Your task to perform on an android device: Clear the cart on ebay. Add dell alienware to the cart on ebay, then select checkout. Image 0: 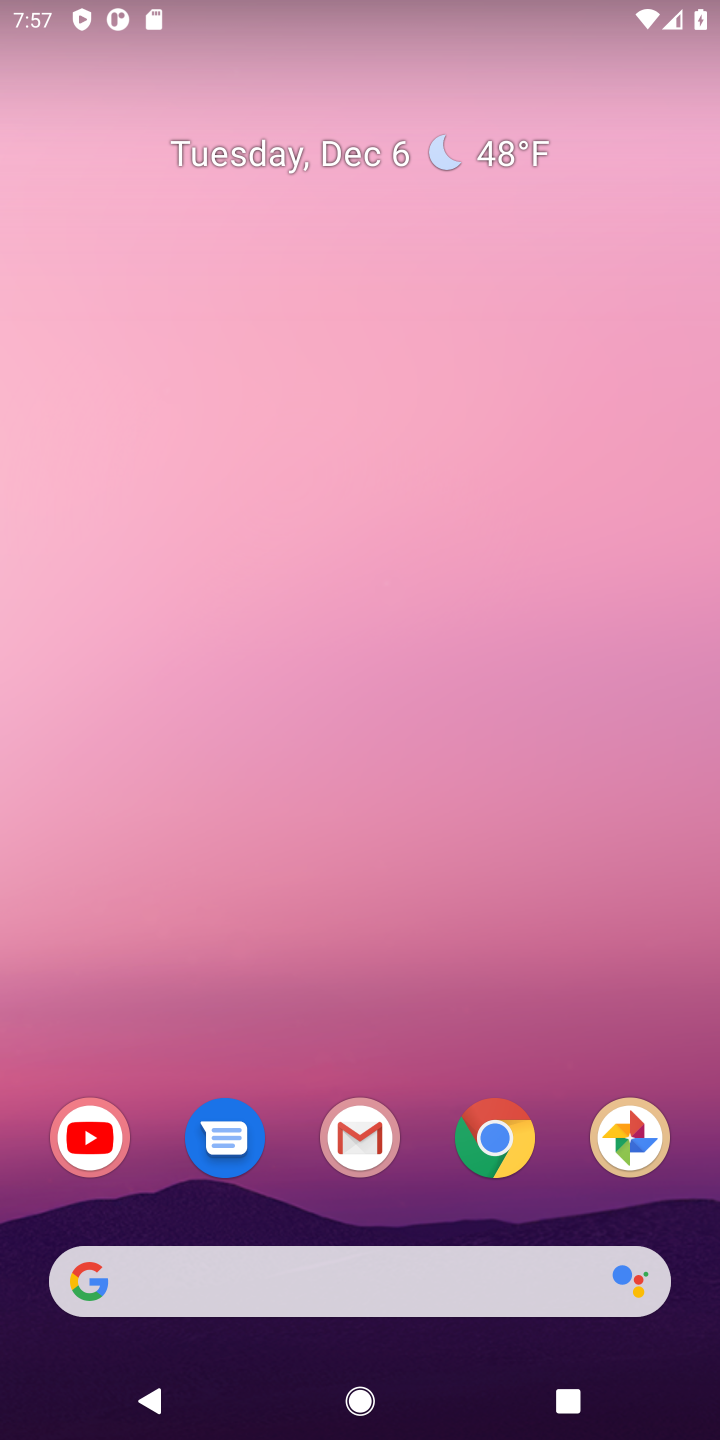
Step 0: click (498, 1140)
Your task to perform on an android device: Clear the cart on ebay. Add dell alienware to the cart on ebay, then select checkout. Image 1: 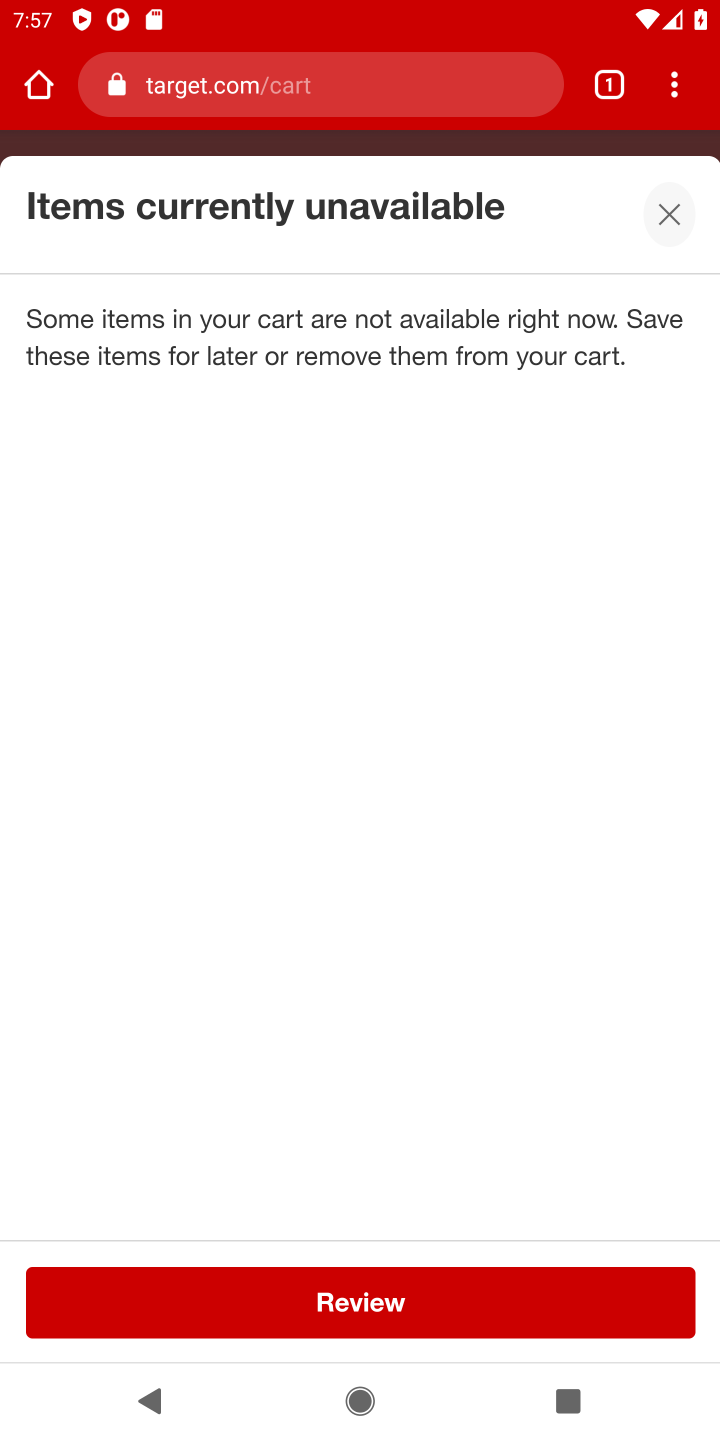
Step 1: click (331, 92)
Your task to perform on an android device: Clear the cart on ebay. Add dell alienware to the cart on ebay, then select checkout. Image 2: 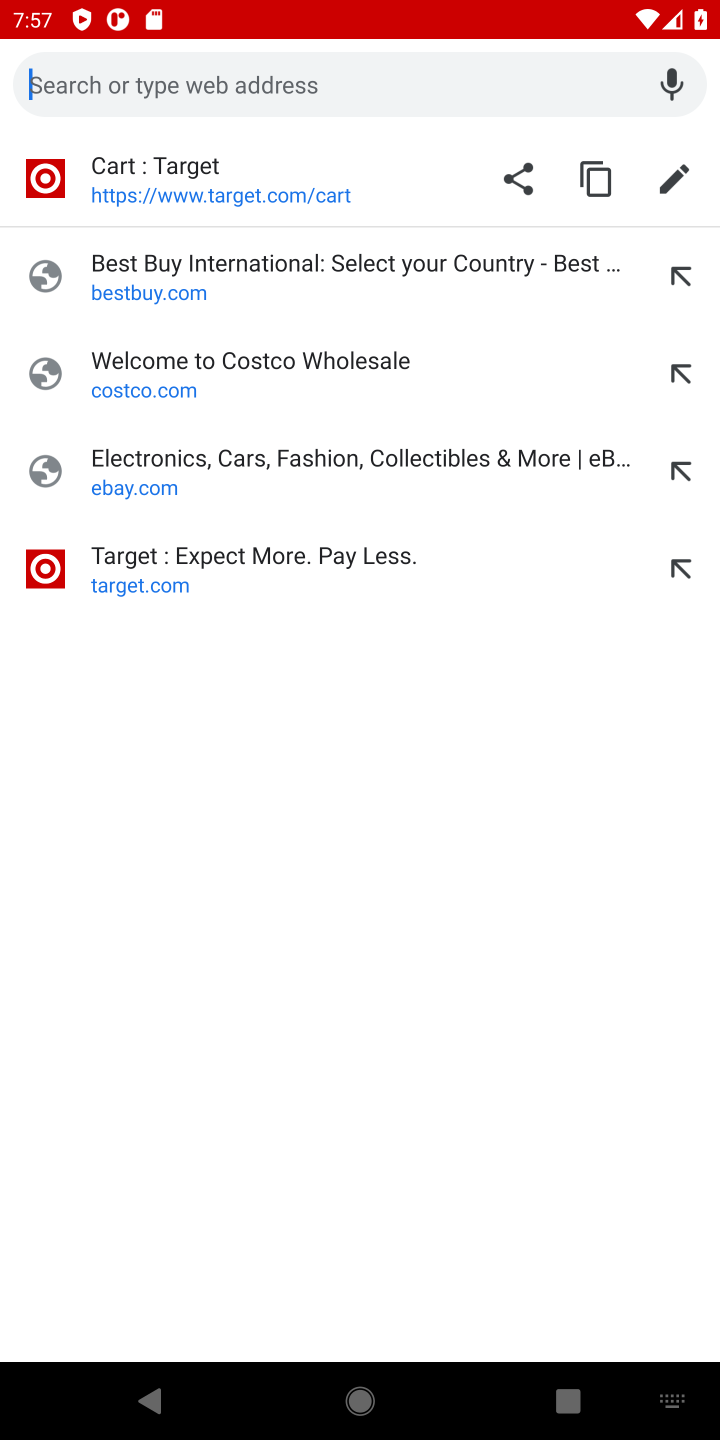
Step 2: click (111, 469)
Your task to perform on an android device: Clear the cart on ebay. Add dell alienware to the cart on ebay, then select checkout. Image 3: 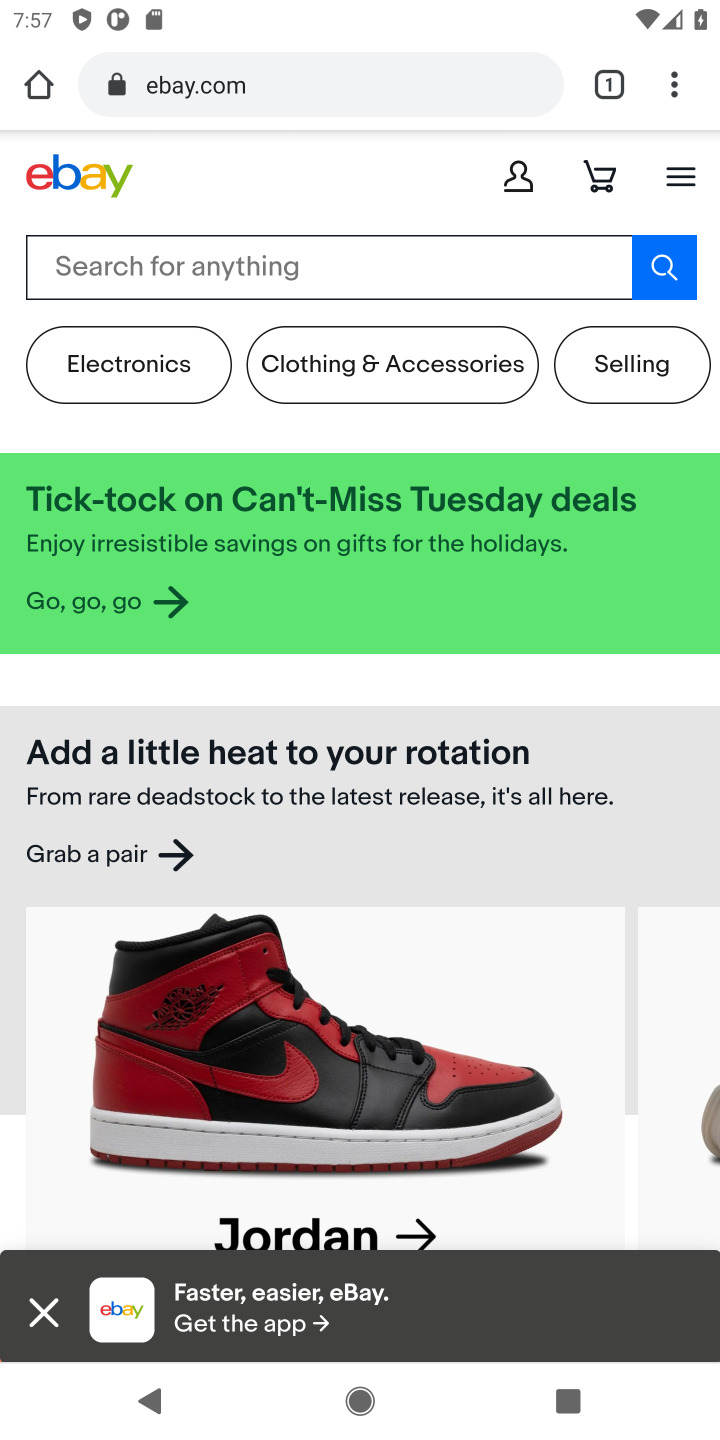
Step 3: click (604, 180)
Your task to perform on an android device: Clear the cart on ebay. Add dell alienware to the cart on ebay, then select checkout. Image 4: 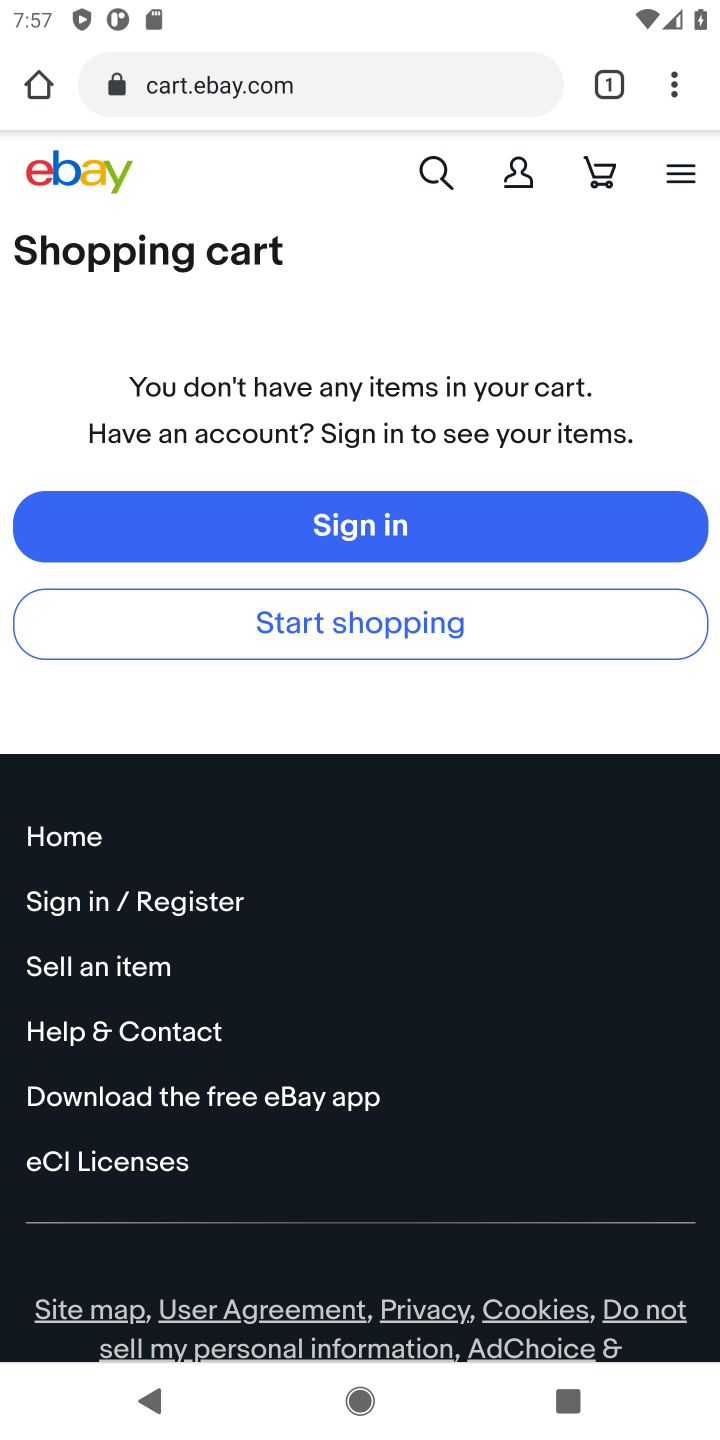
Step 4: click (430, 165)
Your task to perform on an android device: Clear the cart on ebay. Add dell alienware to the cart on ebay, then select checkout. Image 5: 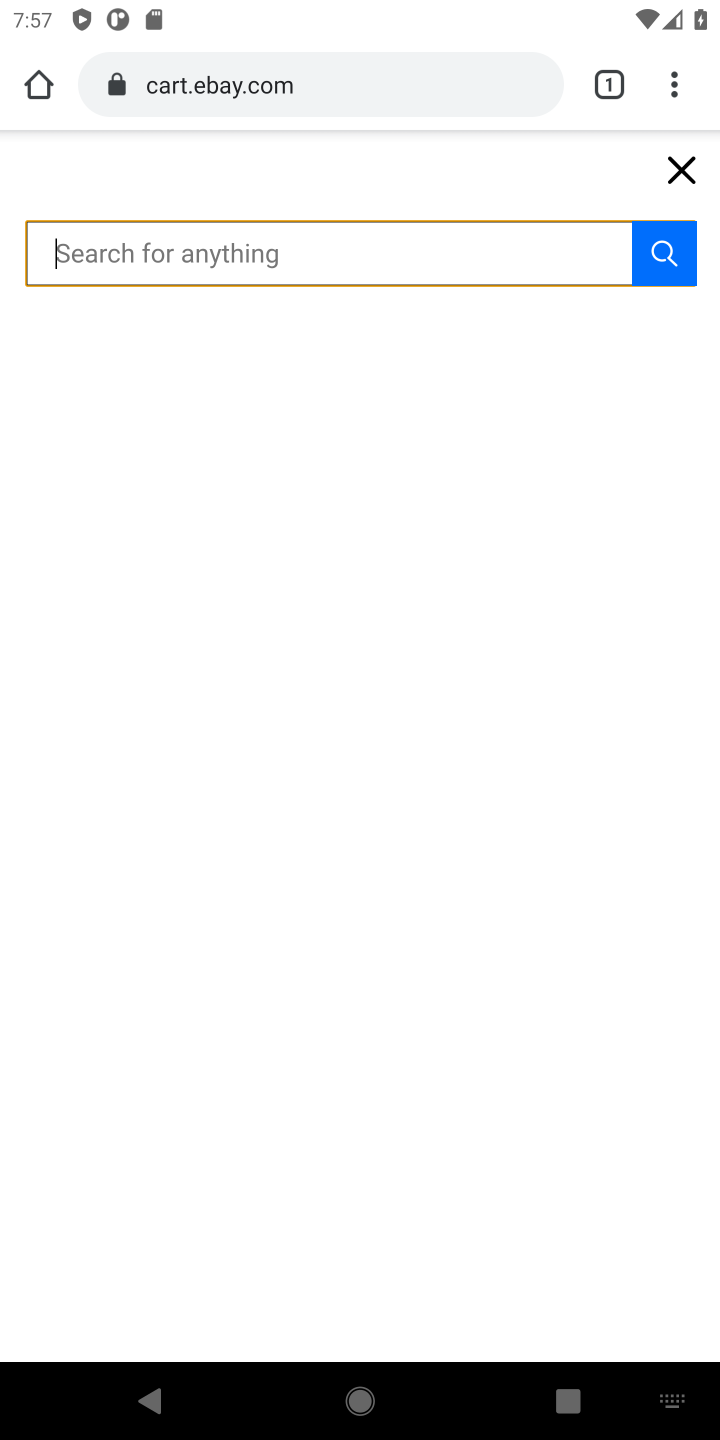
Step 5: type "dell alienware"
Your task to perform on an android device: Clear the cart on ebay. Add dell alienware to the cart on ebay, then select checkout. Image 6: 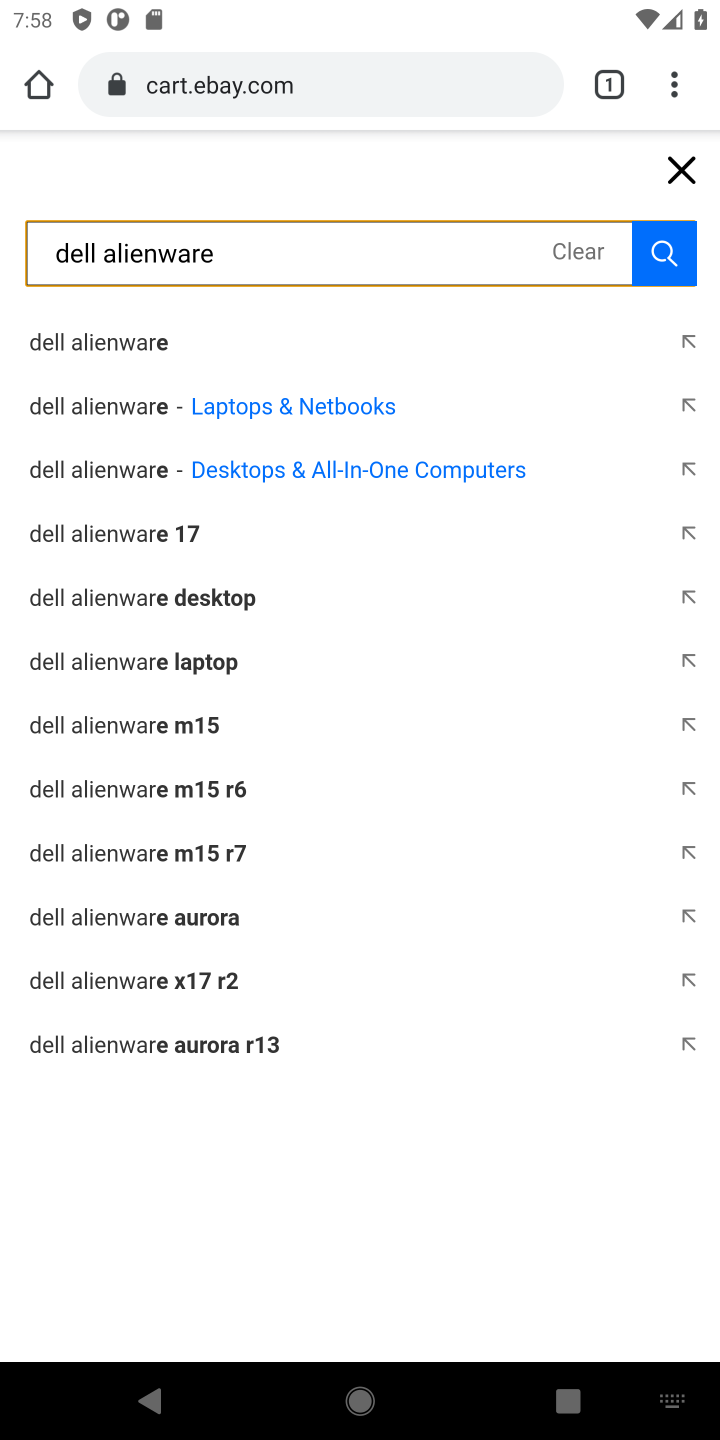
Step 6: click (98, 351)
Your task to perform on an android device: Clear the cart on ebay. Add dell alienware to the cart on ebay, then select checkout. Image 7: 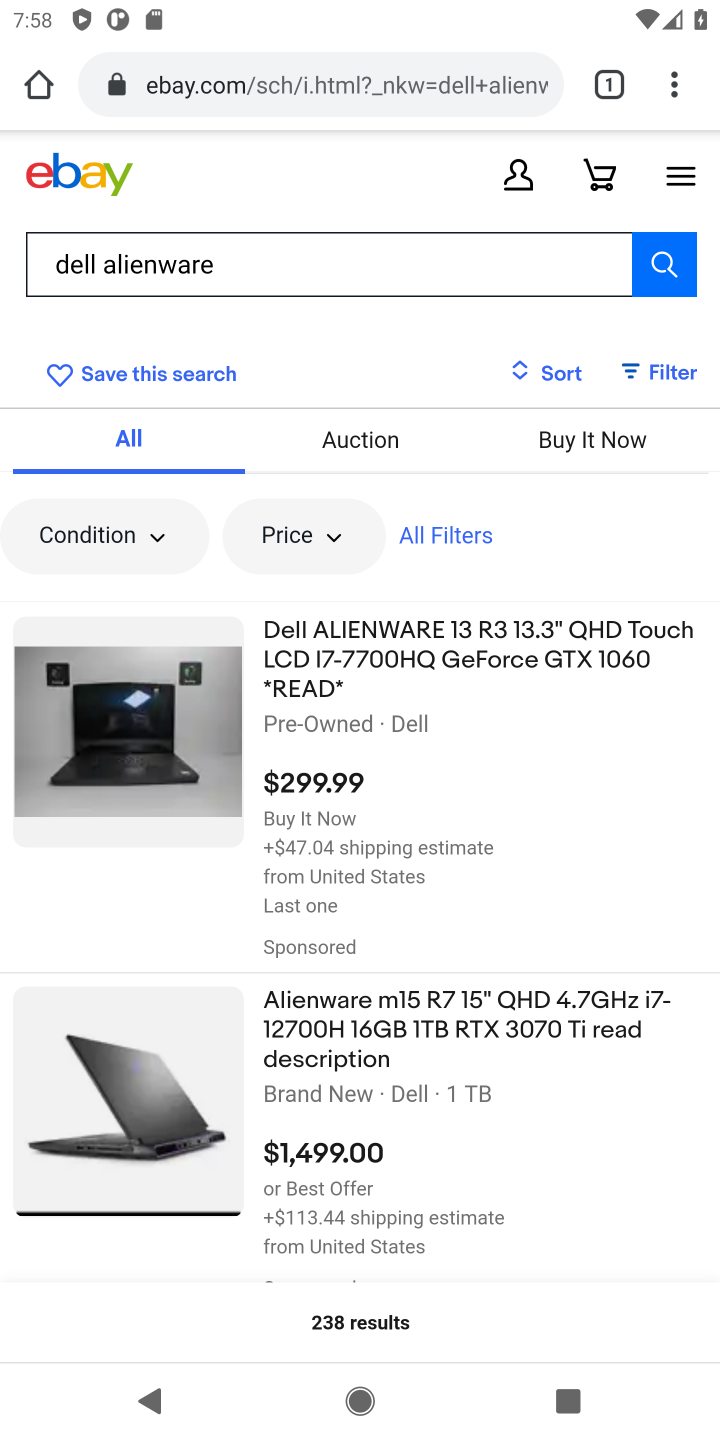
Step 7: click (324, 661)
Your task to perform on an android device: Clear the cart on ebay. Add dell alienware to the cart on ebay, then select checkout. Image 8: 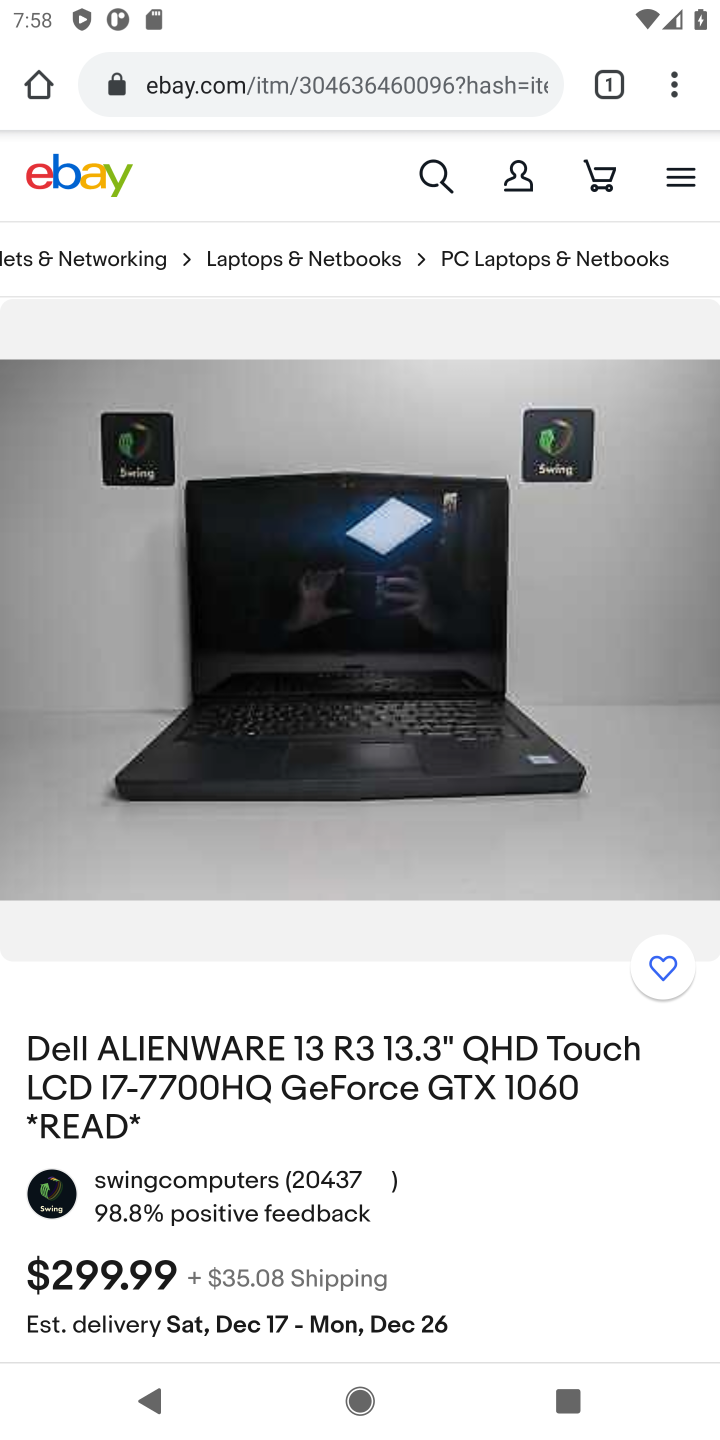
Step 8: drag from (491, 1054) to (485, 97)
Your task to perform on an android device: Clear the cart on ebay. Add dell alienware to the cart on ebay, then select checkout. Image 9: 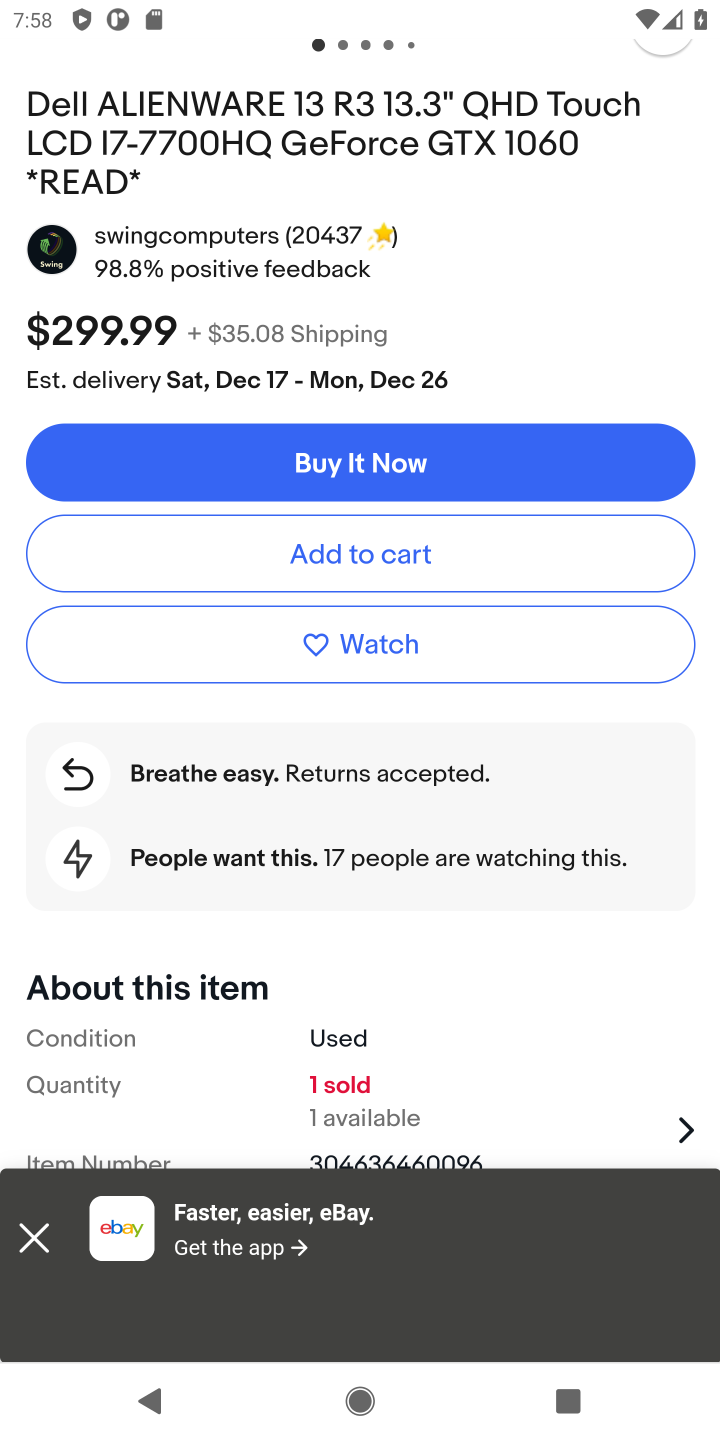
Step 9: click (345, 539)
Your task to perform on an android device: Clear the cart on ebay. Add dell alienware to the cart on ebay, then select checkout. Image 10: 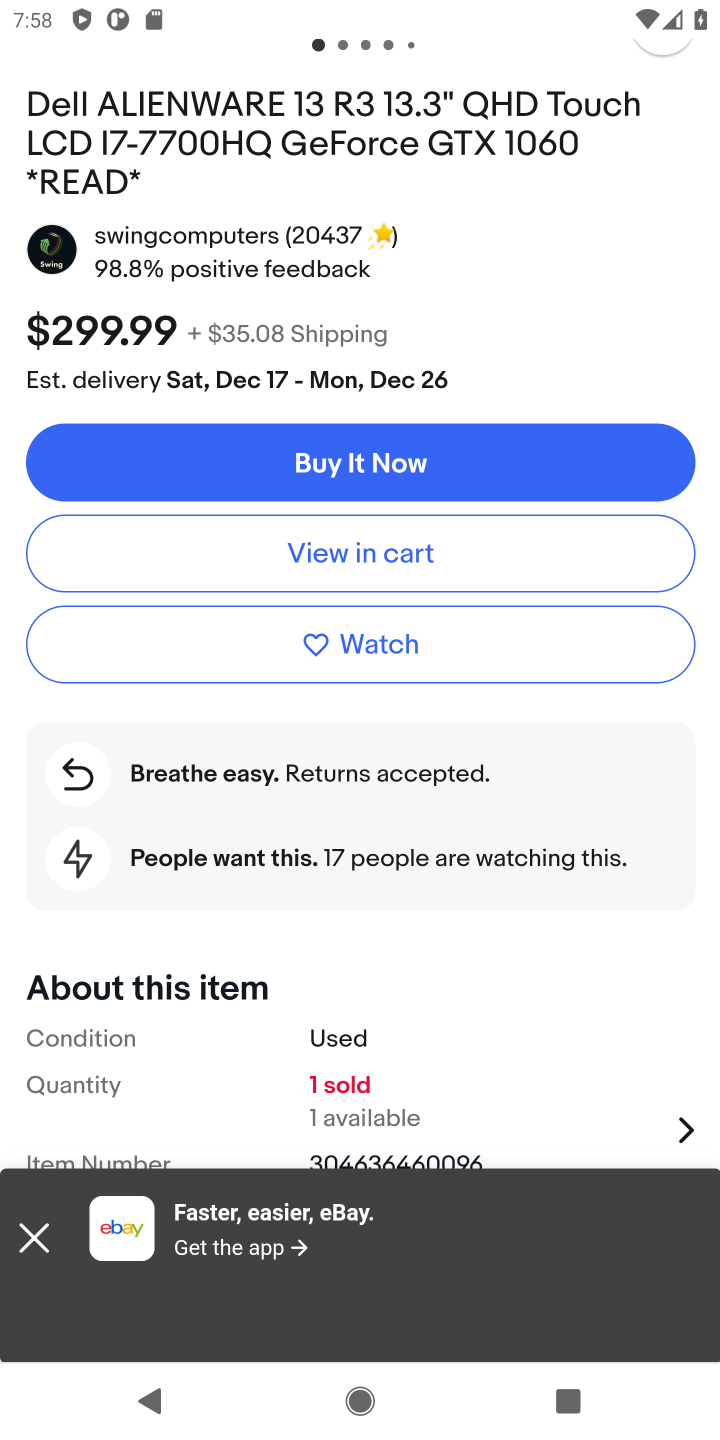
Step 10: click (345, 558)
Your task to perform on an android device: Clear the cart on ebay. Add dell alienware to the cart on ebay, then select checkout. Image 11: 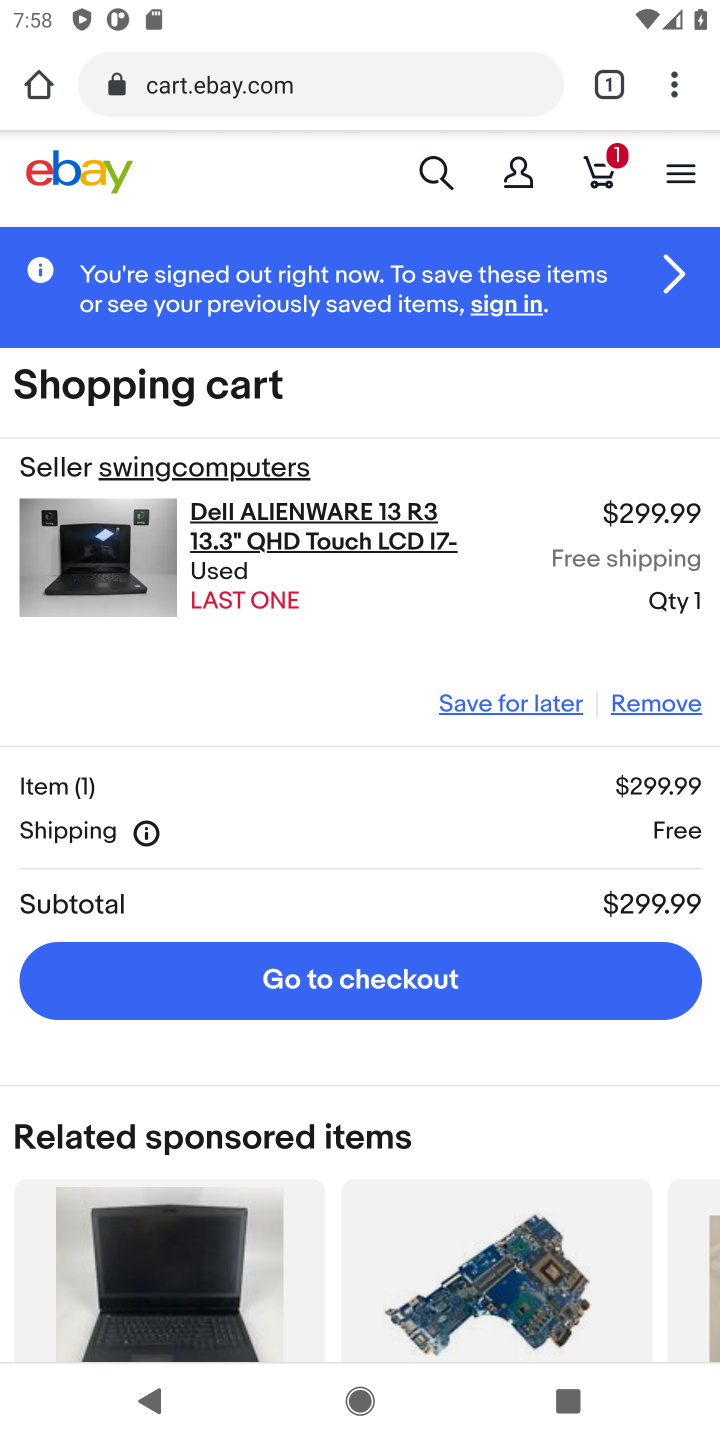
Step 11: click (334, 986)
Your task to perform on an android device: Clear the cart on ebay. Add dell alienware to the cart on ebay, then select checkout. Image 12: 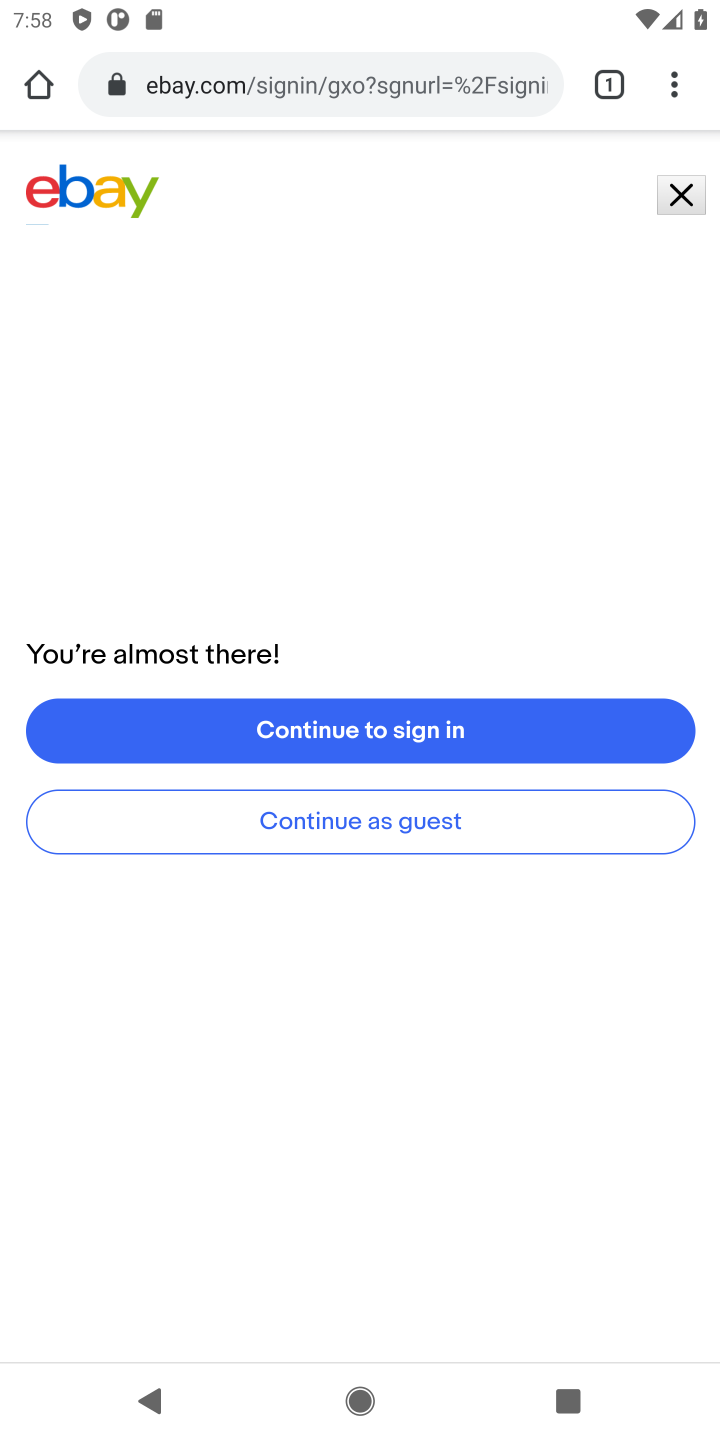
Step 12: task complete